Your task to perform on an android device: refresh tabs in the chrome app Image 0: 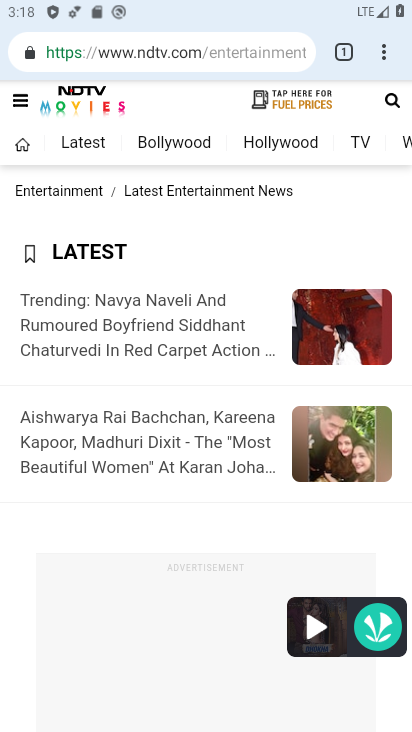
Step 0: press home button
Your task to perform on an android device: refresh tabs in the chrome app Image 1: 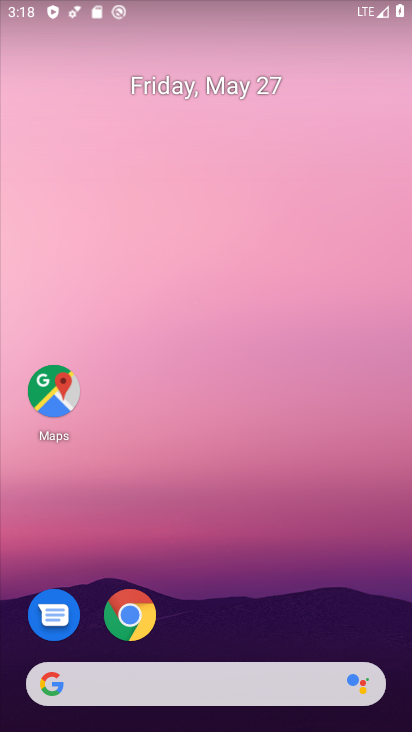
Step 1: click (116, 615)
Your task to perform on an android device: refresh tabs in the chrome app Image 2: 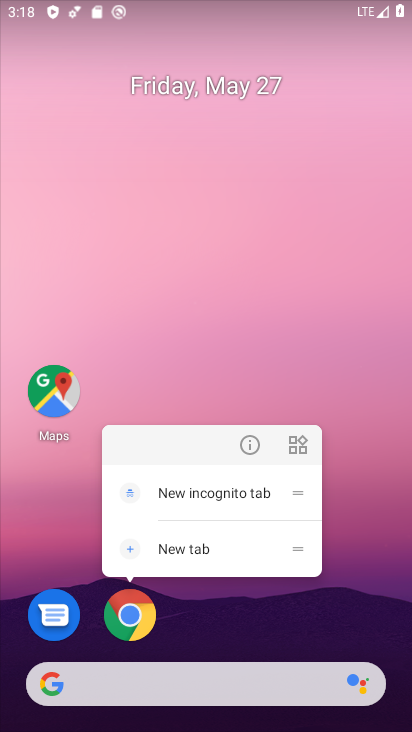
Step 2: click (116, 615)
Your task to perform on an android device: refresh tabs in the chrome app Image 3: 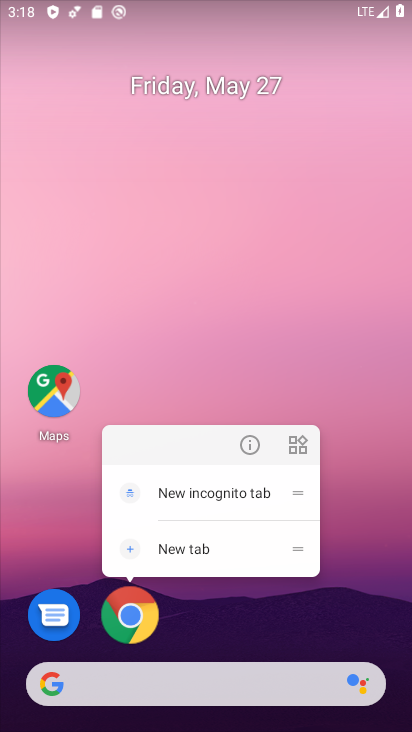
Step 3: click (116, 615)
Your task to perform on an android device: refresh tabs in the chrome app Image 4: 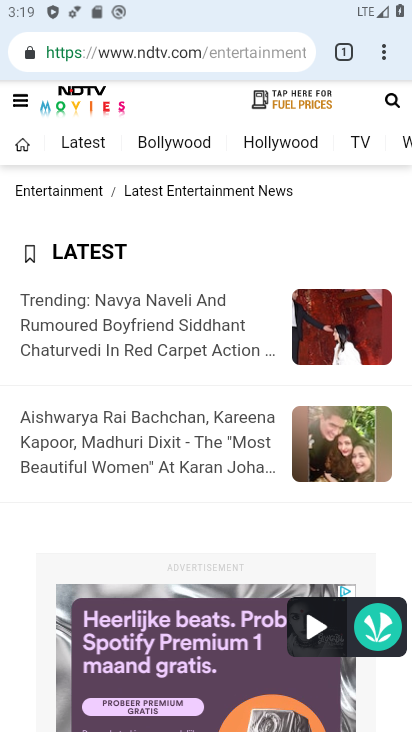
Step 4: click (384, 52)
Your task to perform on an android device: refresh tabs in the chrome app Image 5: 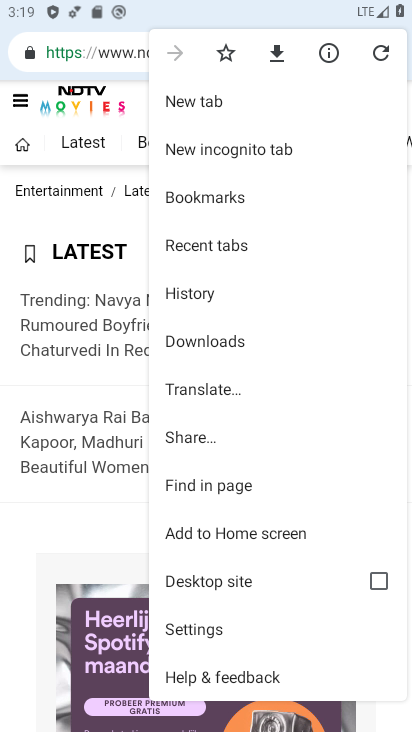
Step 5: click (390, 49)
Your task to perform on an android device: refresh tabs in the chrome app Image 6: 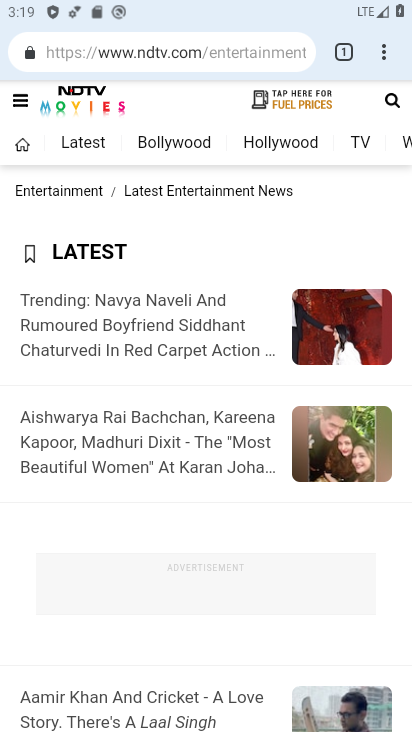
Step 6: task complete